Your task to perform on an android device: turn on location history Image 0: 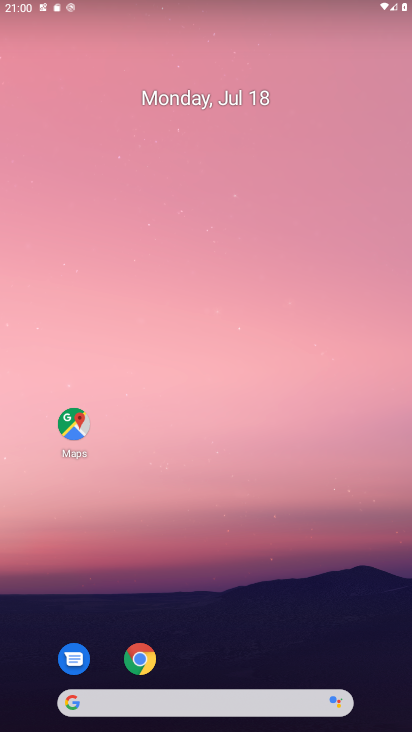
Step 0: press home button
Your task to perform on an android device: turn on location history Image 1: 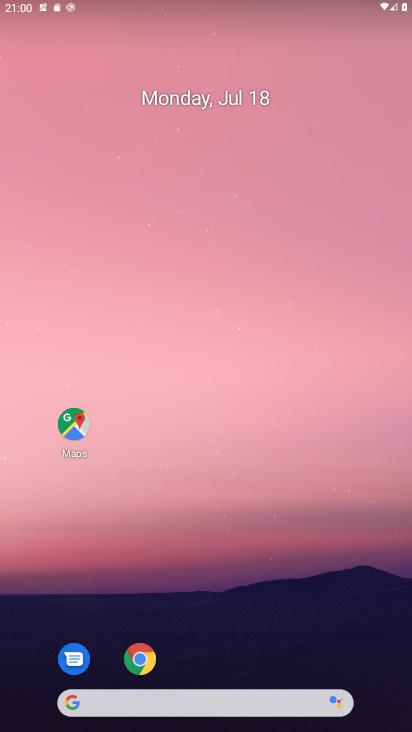
Step 1: click (228, 156)
Your task to perform on an android device: turn on location history Image 2: 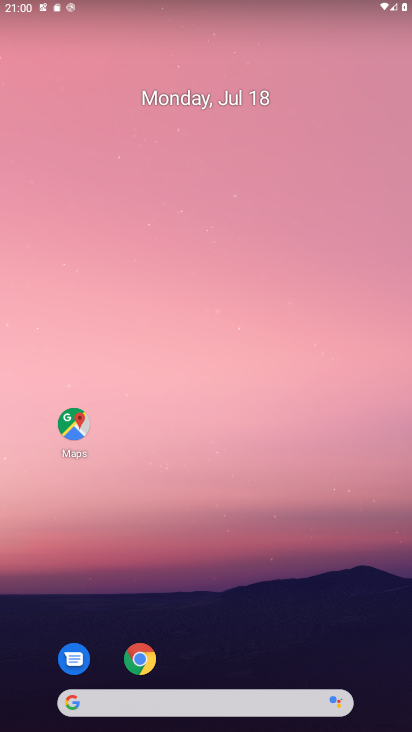
Step 2: drag from (194, 580) to (205, 172)
Your task to perform on an android device: turn on location history Image 3: 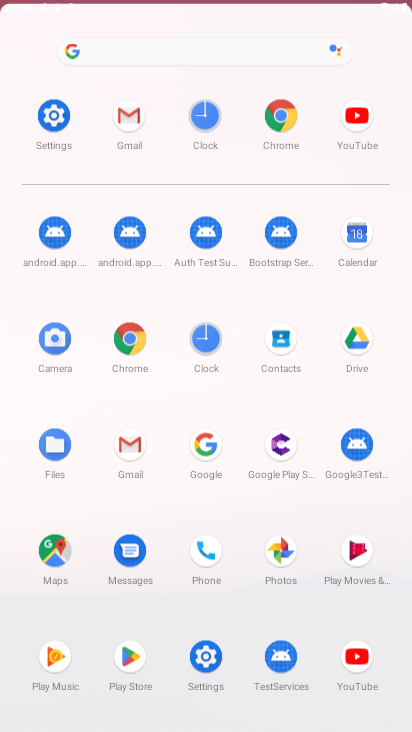
Step 3: drag from (190, 634) to (183, 165)
Your task to perform on an android device: turn on location history Image 4: 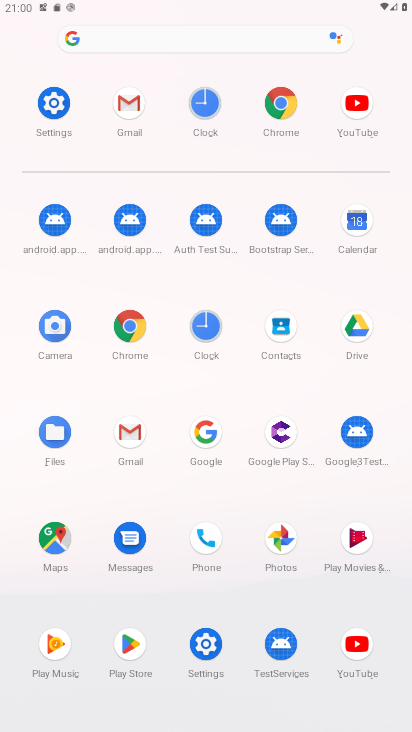
Step 4: click (50, 102)
Your task to perform on an android device: turn on location history Image 5: 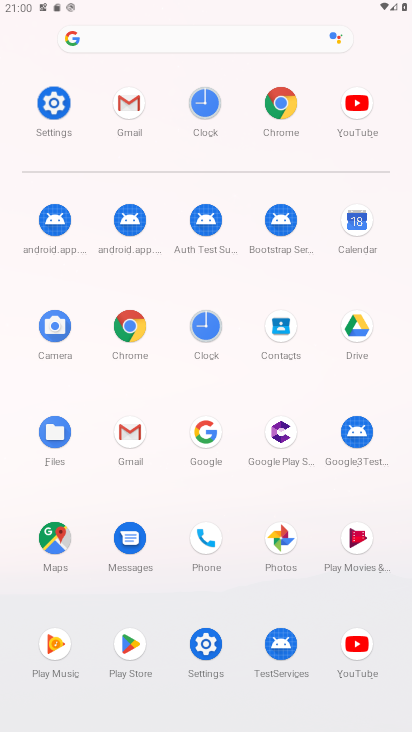
Step 5: click (53, 98)
Your task to perform on an android device: turn on location history Image 6: 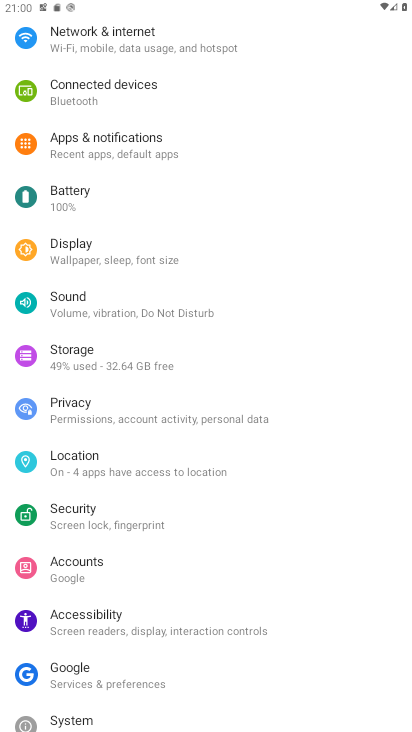
Step 6: click (63, 198)
Your task to perform on an android device: turn on location history Image 7: 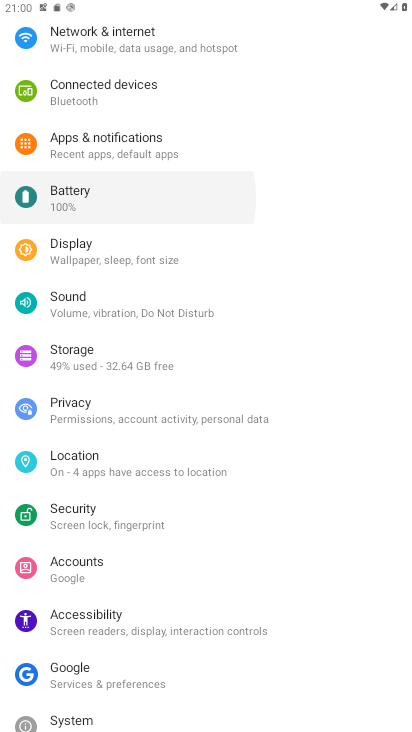
Step 7: click (66, 197)
Your task to perform on an android device: turn on location history Image 8: 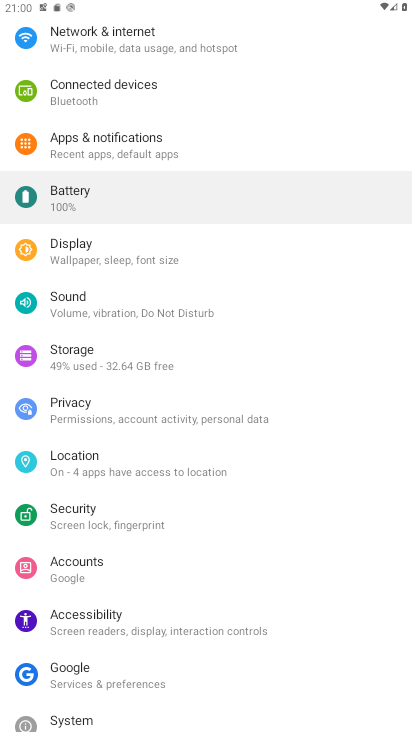
Step 8: click (66, 197)
Your task to perform on an android device: turn on location history Image 9: 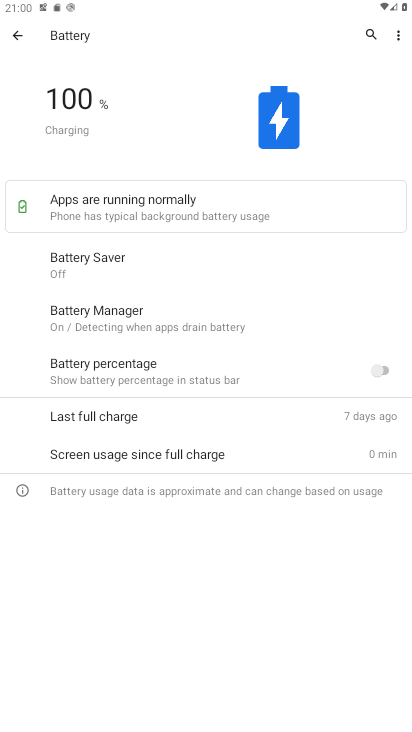
Step 9: click (10, 33)
Your task to perform on an android device: turn on location history Image 10: 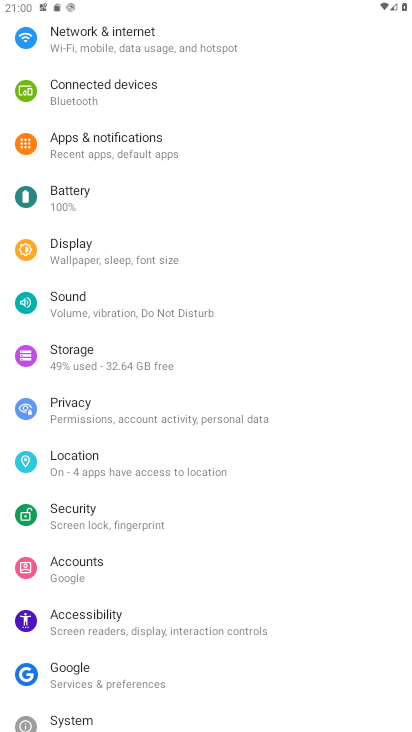
Step 10: click (82, 463)
Your task to perform on an android device: turn on location history Image 11: 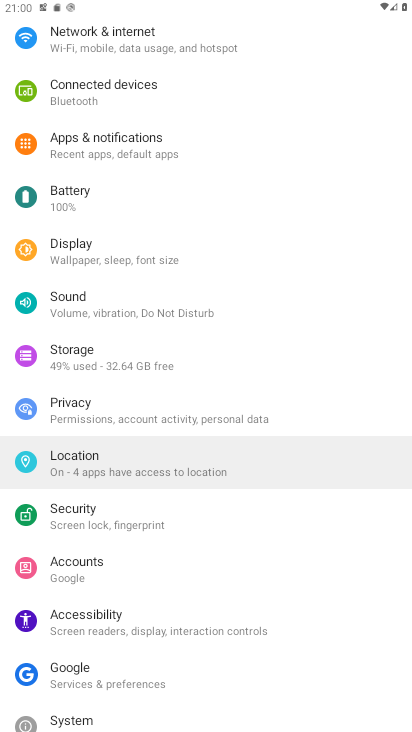
Step 11: click (90, 465)
Your task to perform on an android device: turn on location history Image 12: 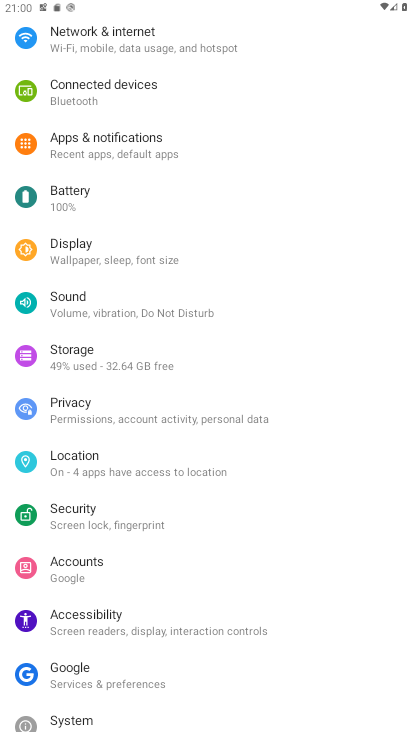
Step 12: click (98, 471)
Your task to perform on an android device: turn on location history Image 13: 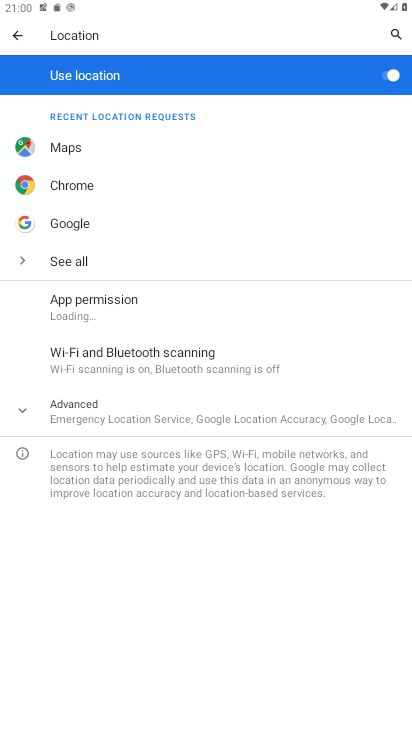
Step 13: click (85, 406)
Your task to perform on an android device: turn on location history Image 14: 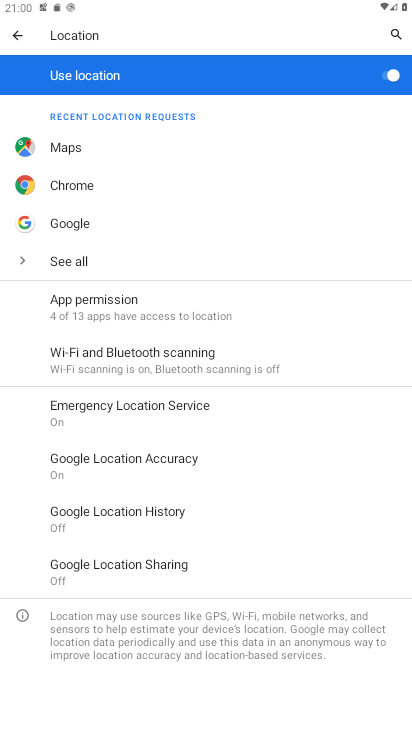
Step 14: click (88, 507)
Your task to perform on an android device: turn on location history Image 15: 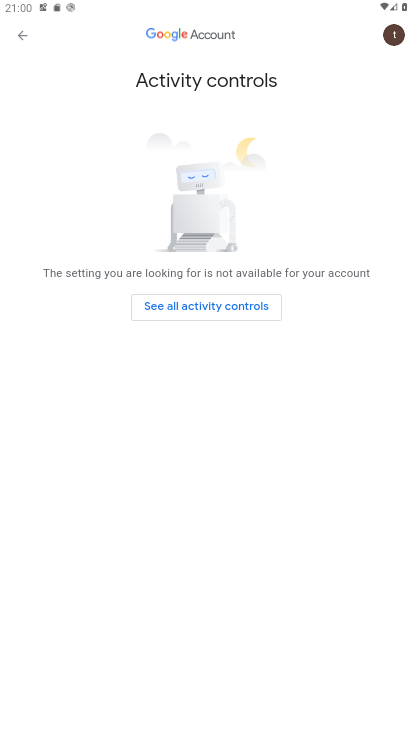
Step 15: task complete